Your task to perform on an android device: What's the weather like in Rio de Janeiro? Image 0: 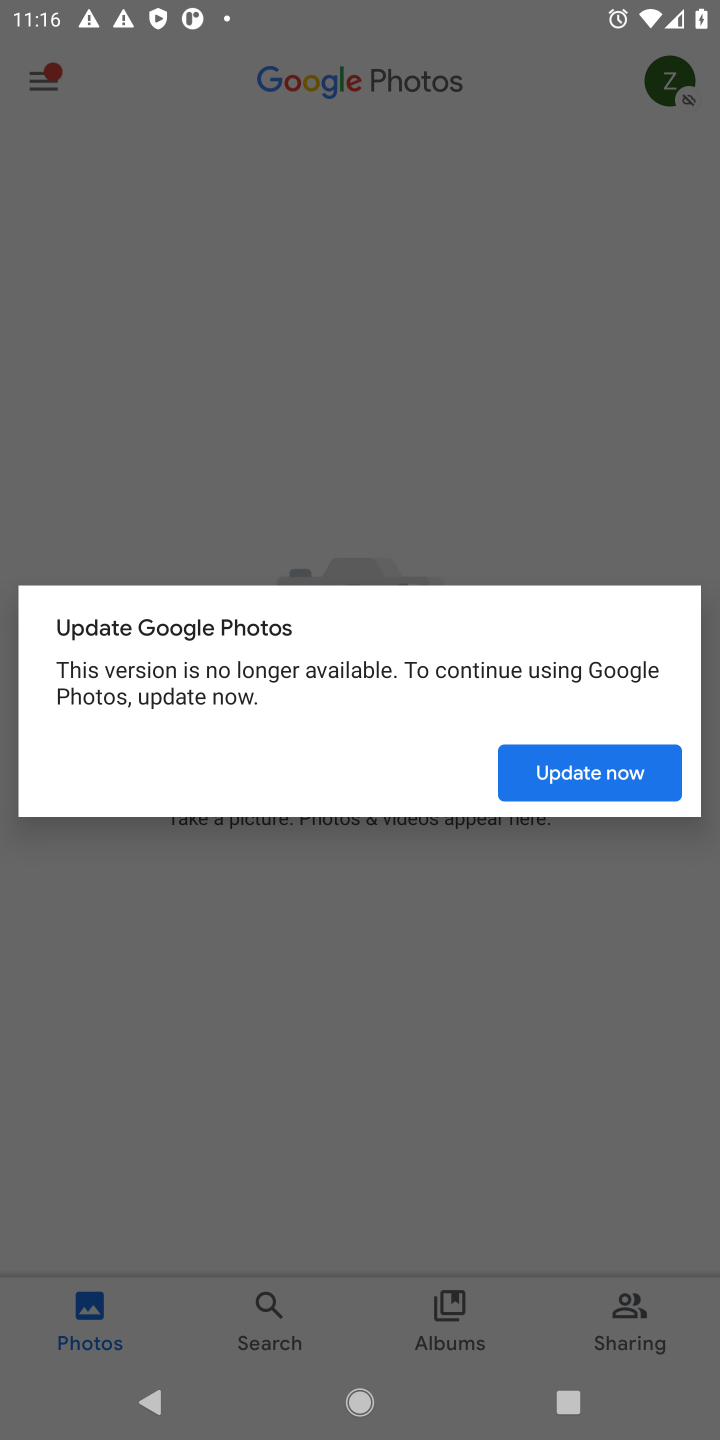
Step 0: press home button
Your task to perform on an android device: What's the weather like in Rio de Janeiro? Image 1: 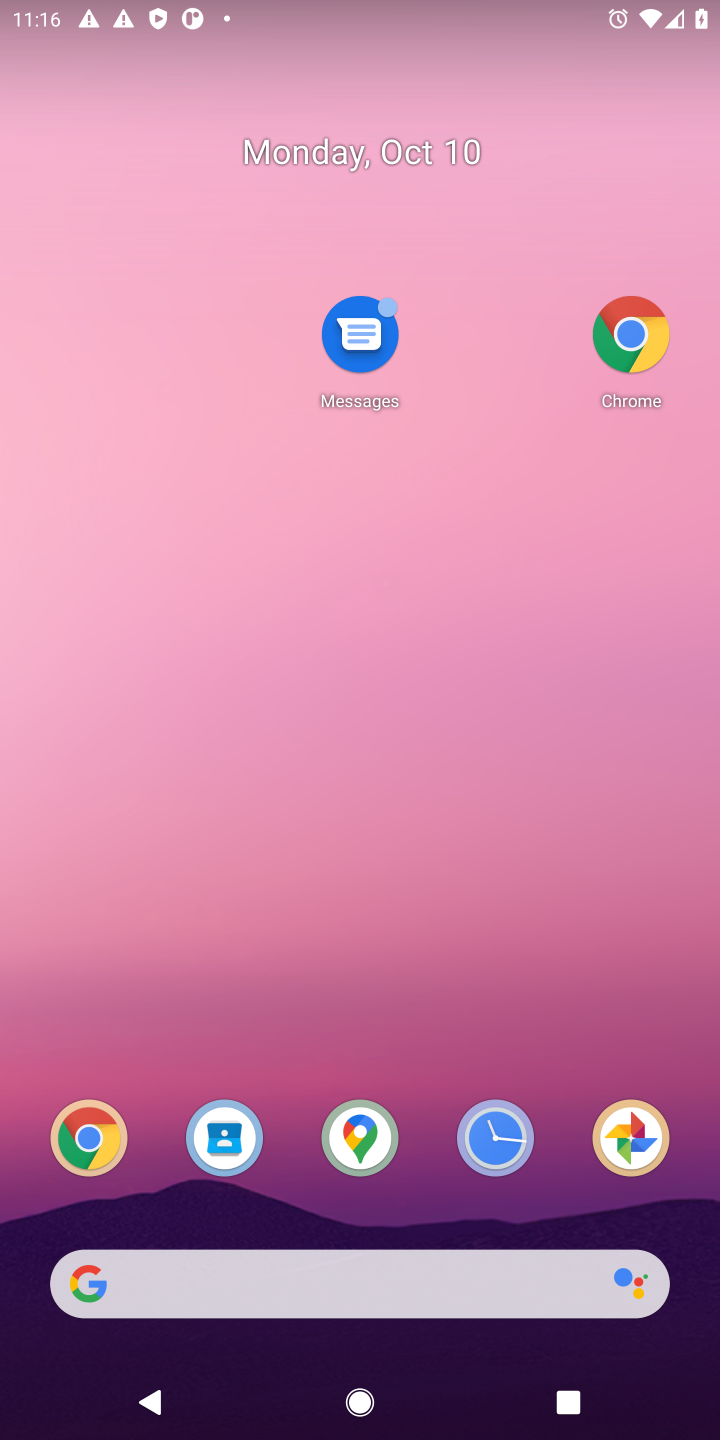
Step 1: click (624, 350)
Your task to perform on an android device: What's the weather like in Rio de Janeiro? Image 2: 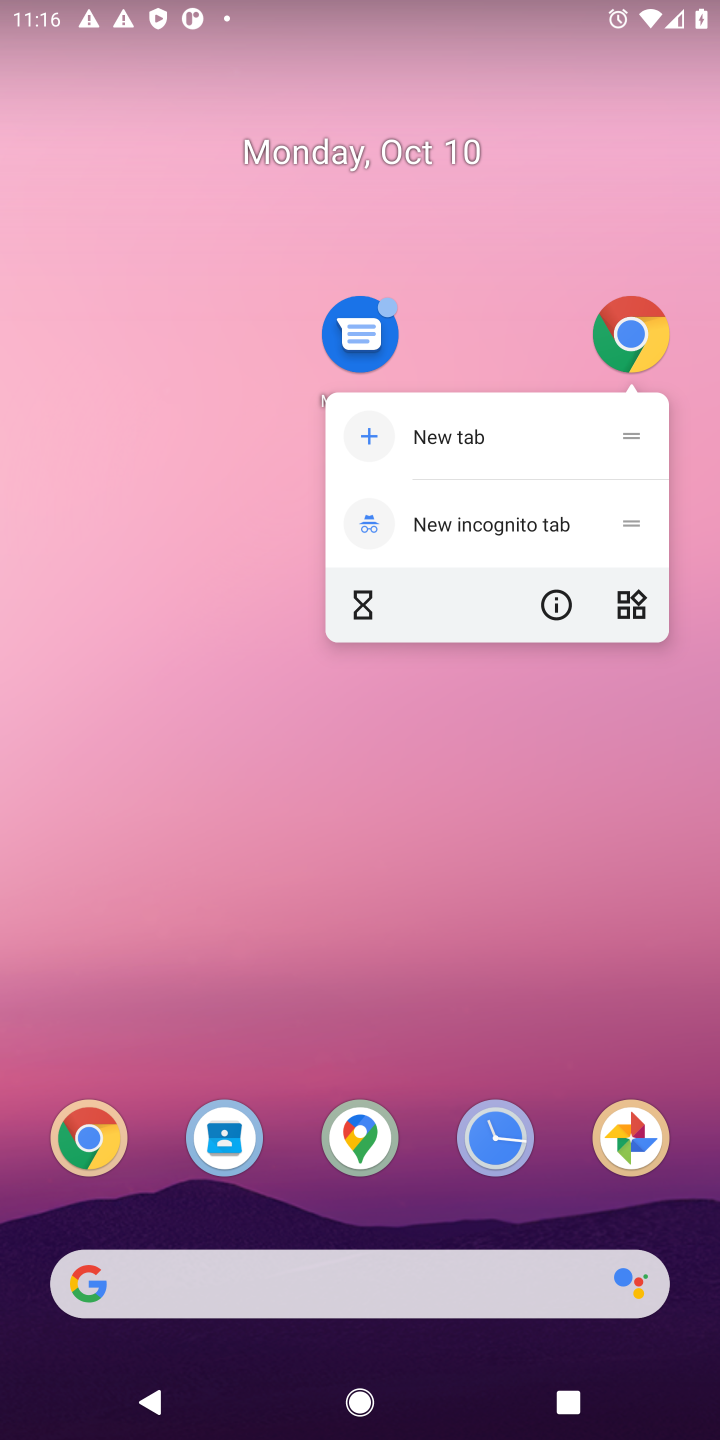
Step 2: click (647, 347)
Your task to perform on an android device: What's the weather like in Rio de Janeiro? Image 3: 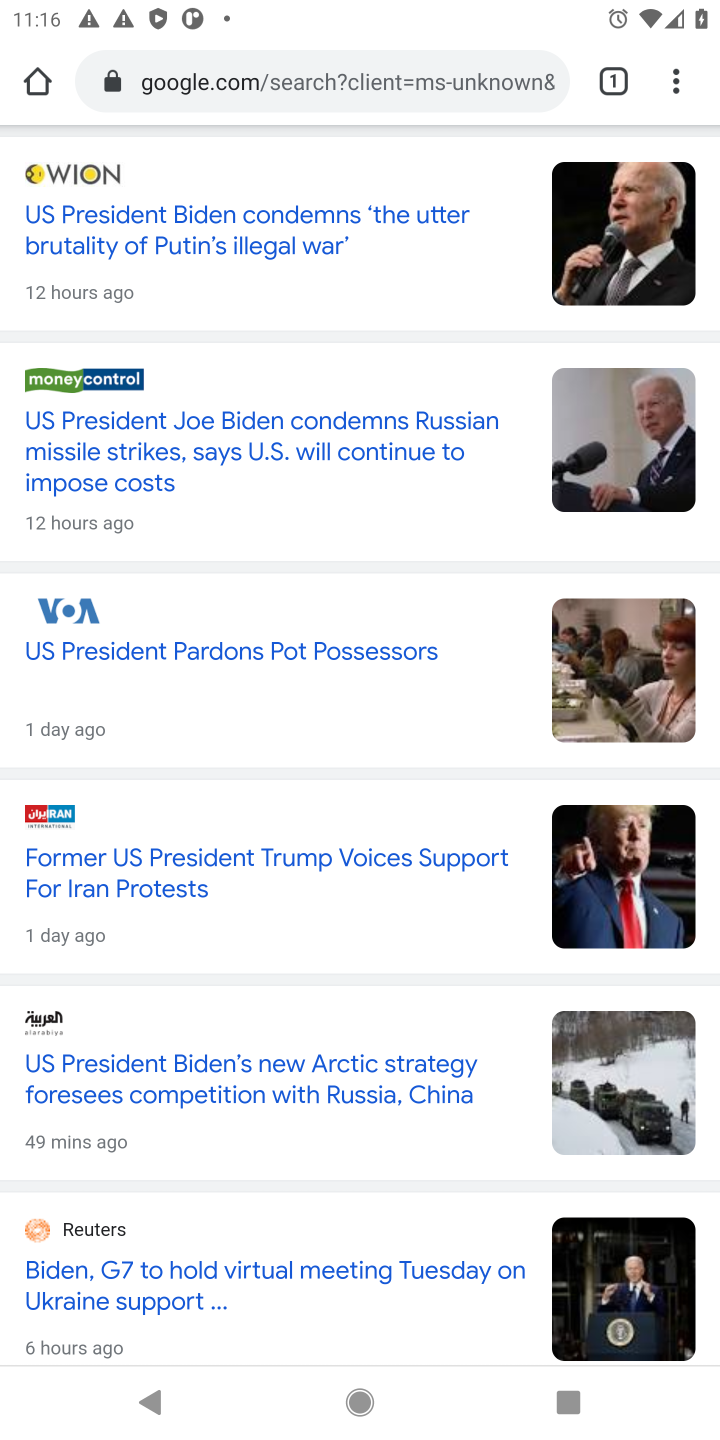
Step 3: click (310, 91)
Your task to perform on an android device: What's the weather like in Rio de Janeiro? Image 4: 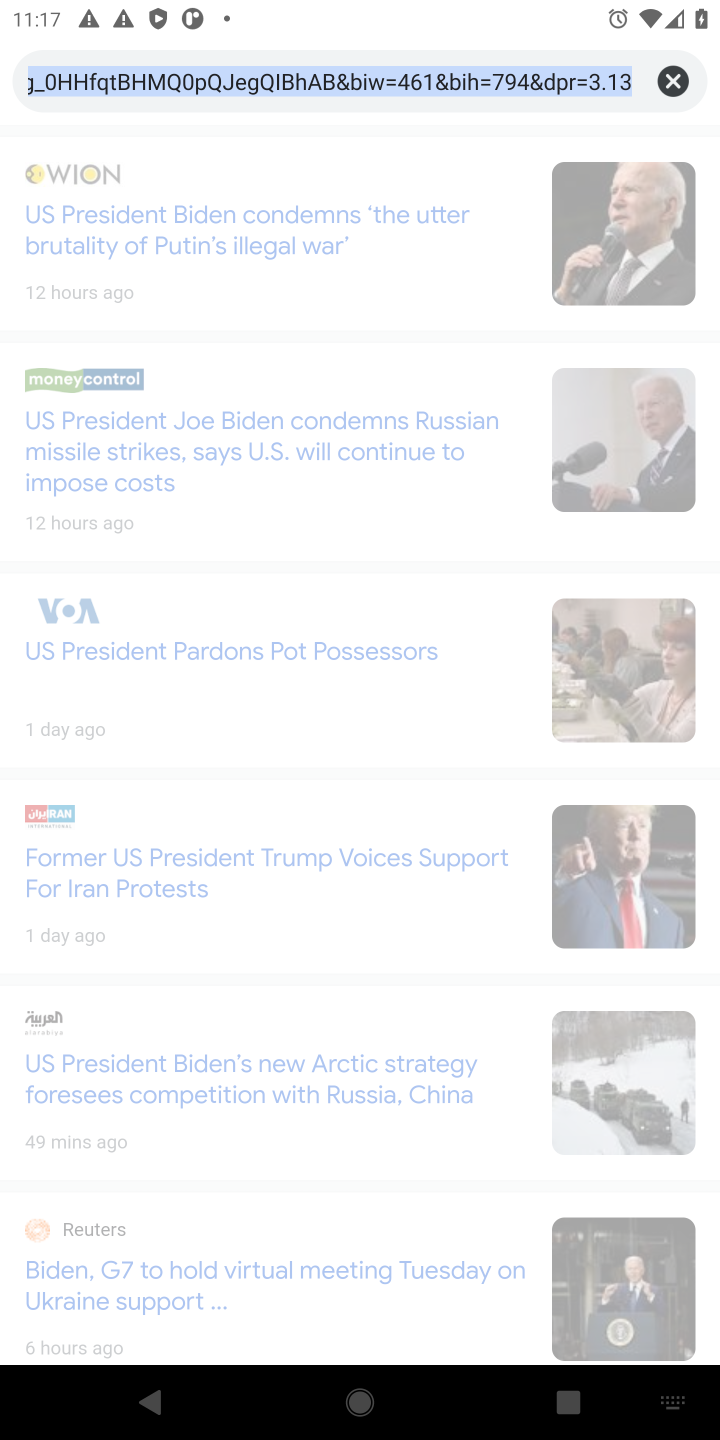
Step 4: type "weather like in Rio de Janeiro"
Your task to perform on an android device: What's the weather like in Rio de Janeiro? Image 5: 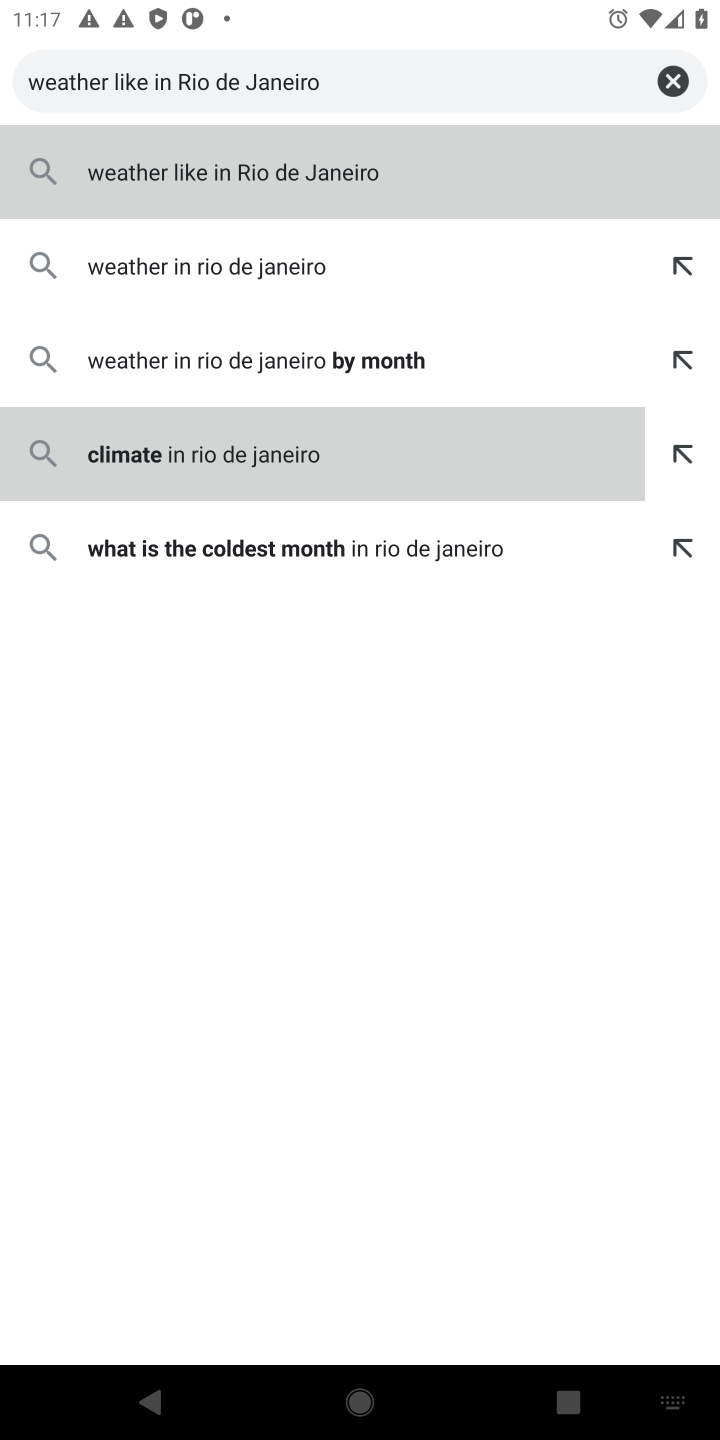
Step 5: press enter
Your task to perform on an android device: What's the weather like in Rio de Janeiro? Image 6: 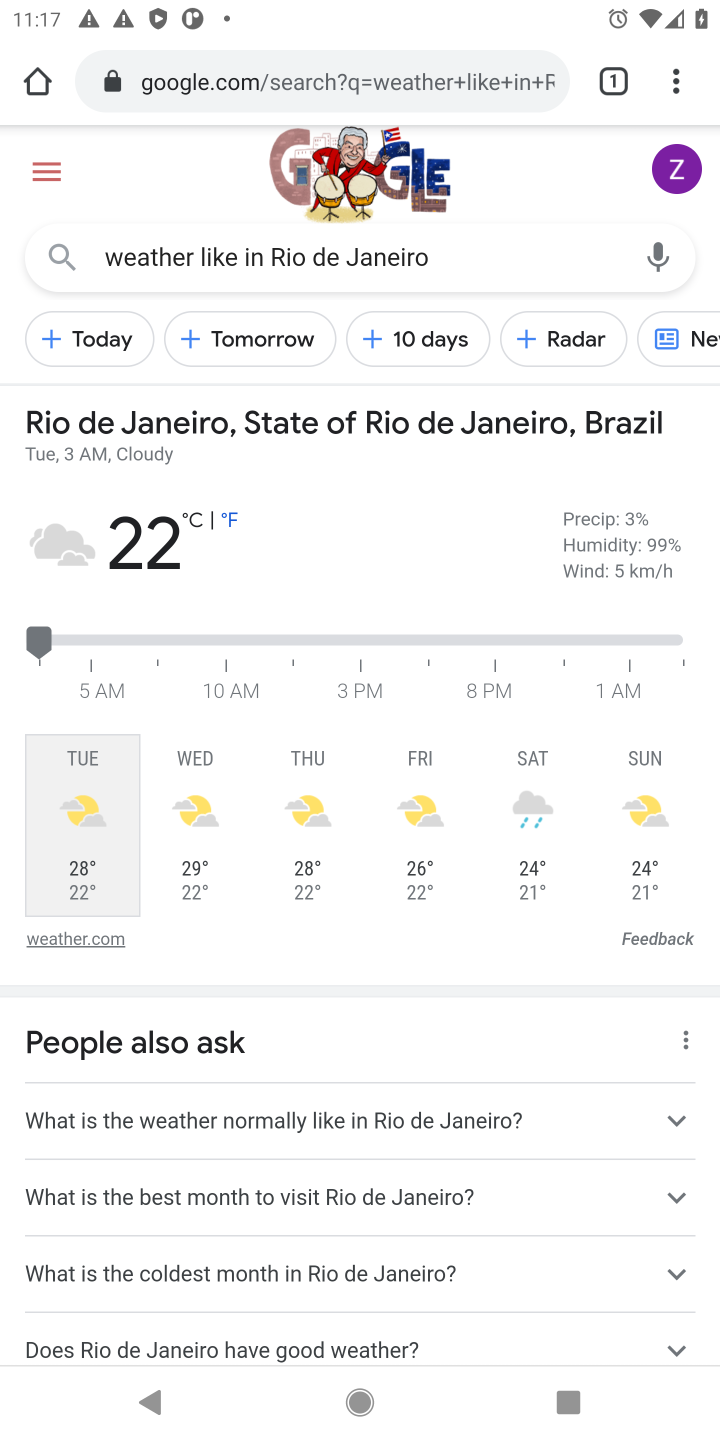
Step 6: task complete